Your task to perform on an android device: Search for the new iphone 13 pro on Etsy. Image 0: 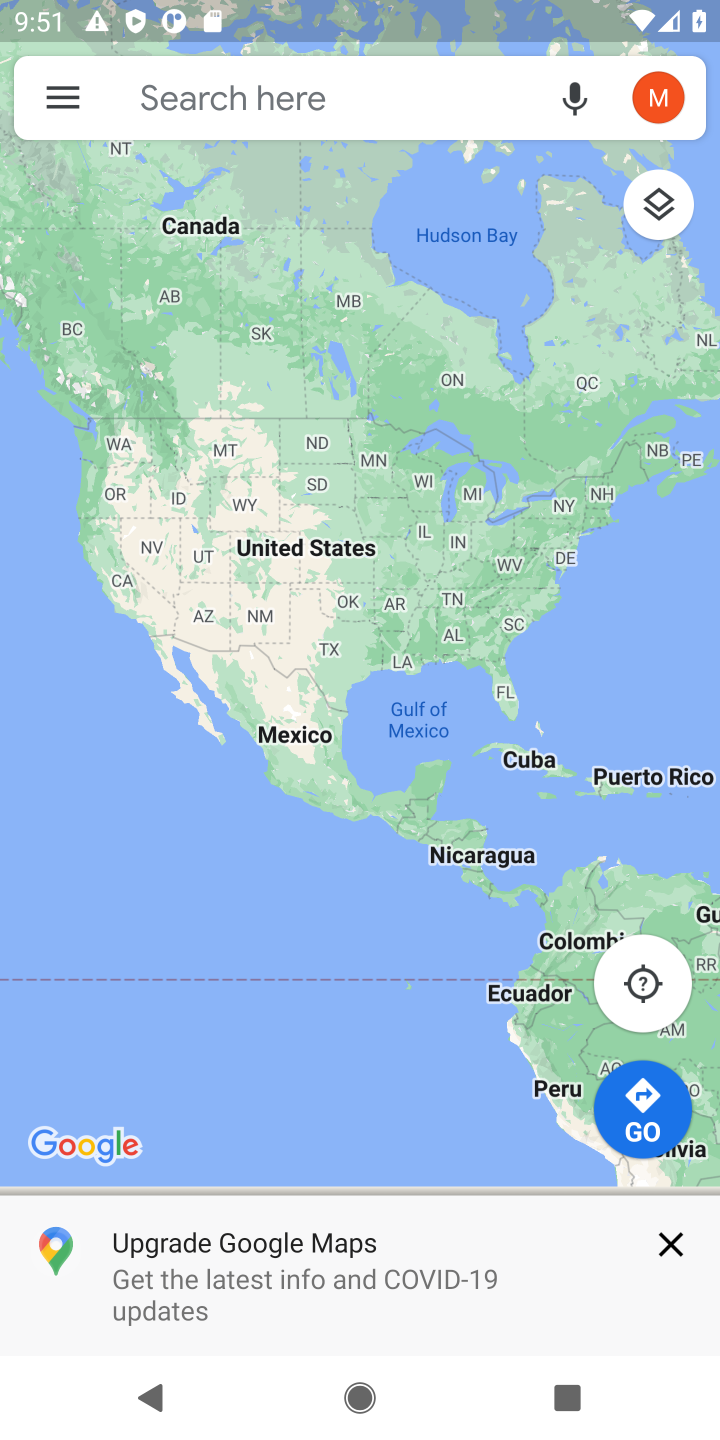
Step 0: press home button
Your task to perform on an android device: Search for the new iphone 13 pro on Etsy. Image 1: 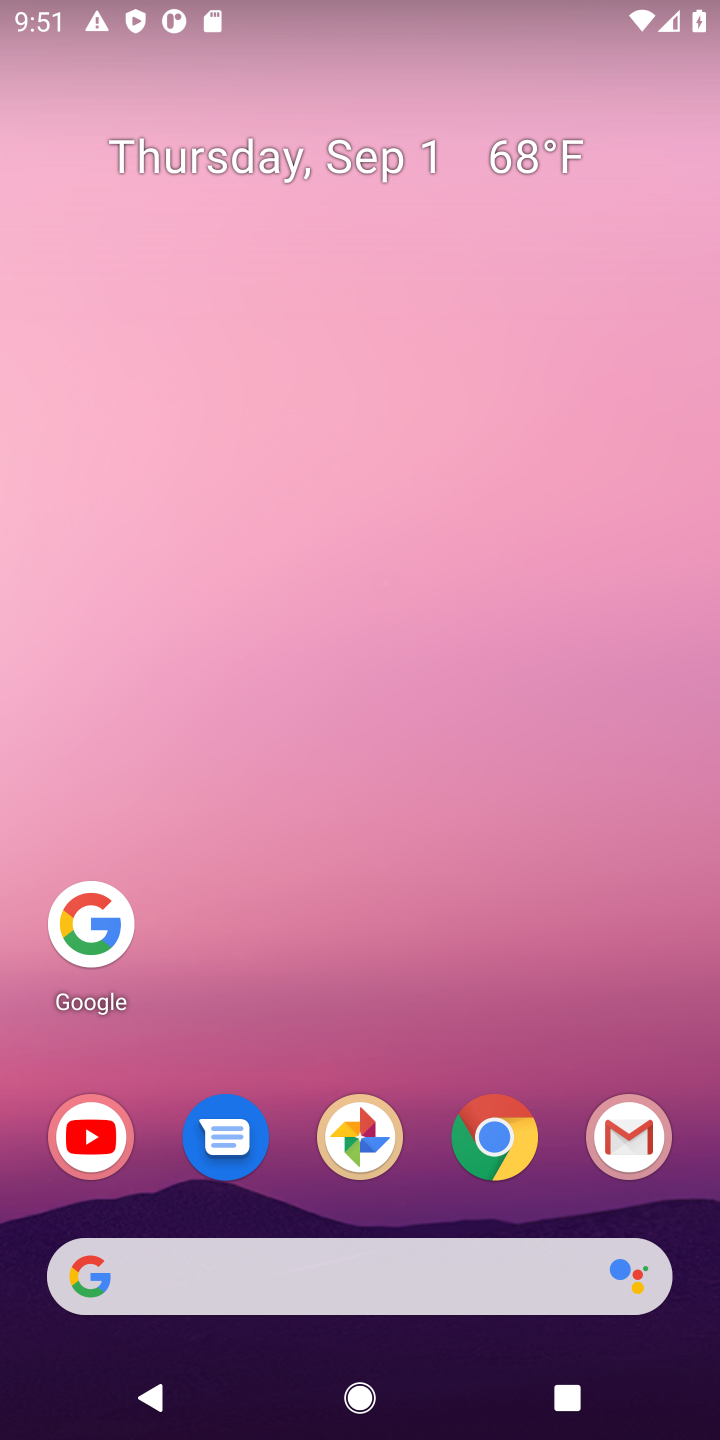
Step 1: click (315, 1276)
Your task to perform on an android device: Search for the new iphone 13 pro on Etsy. Image 2: 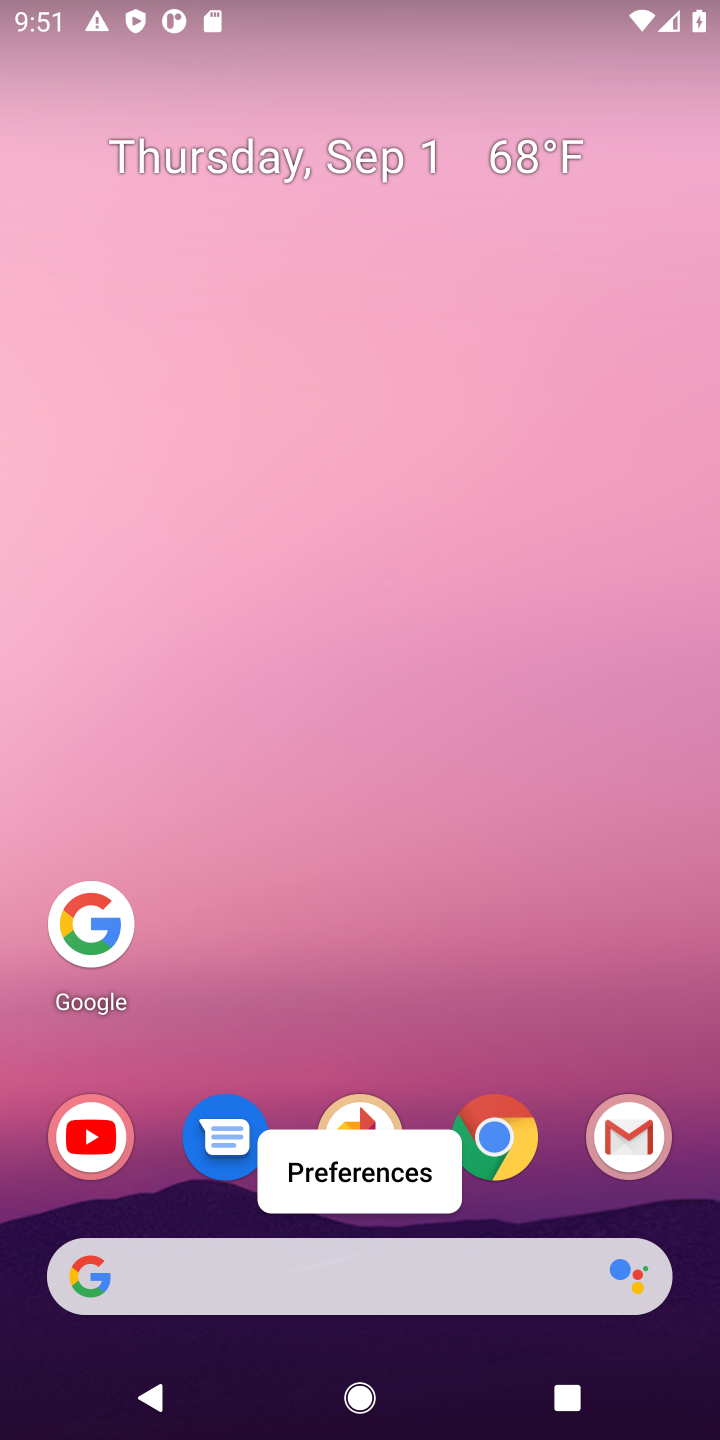
Step 2: click (95, 922)
Your task to perform on an android device: Search for the new iphone 13 pro on Etsy. Image 3: 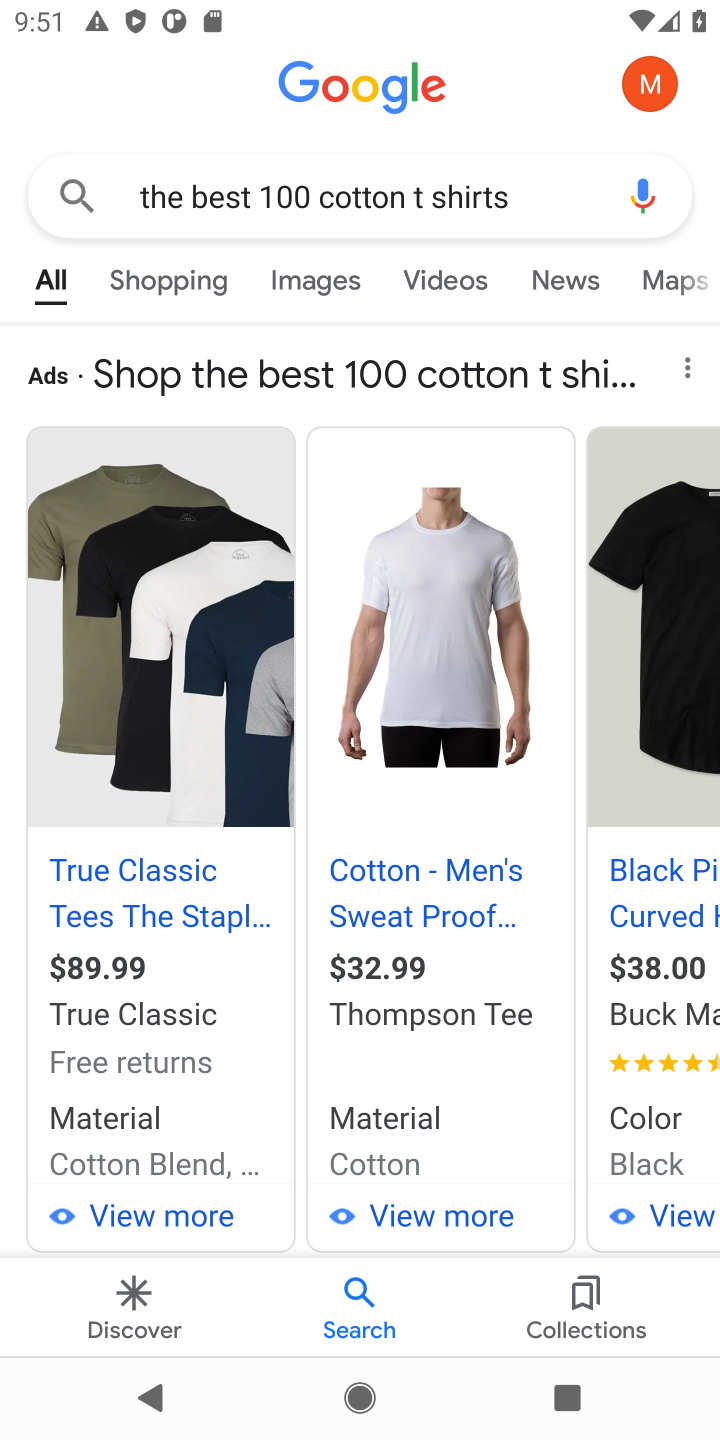
Step 3: click (535, 163)
Your task to perform on an android device: Search for the new iphone 13 pro on Etsy. Image 4: 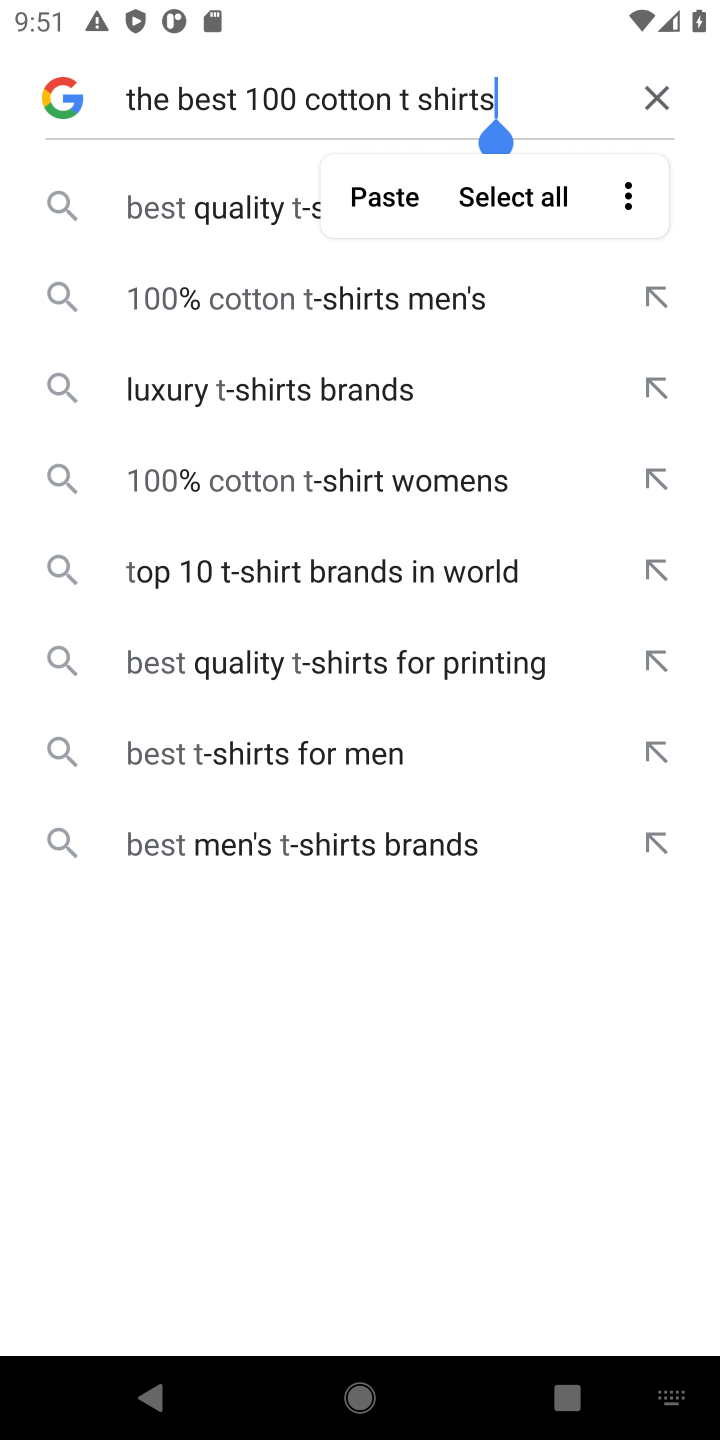
Step 4: click (662, 93)
Your task to perform on an android device: Search for the new iphone 13 pro on Etsy. Image 5: 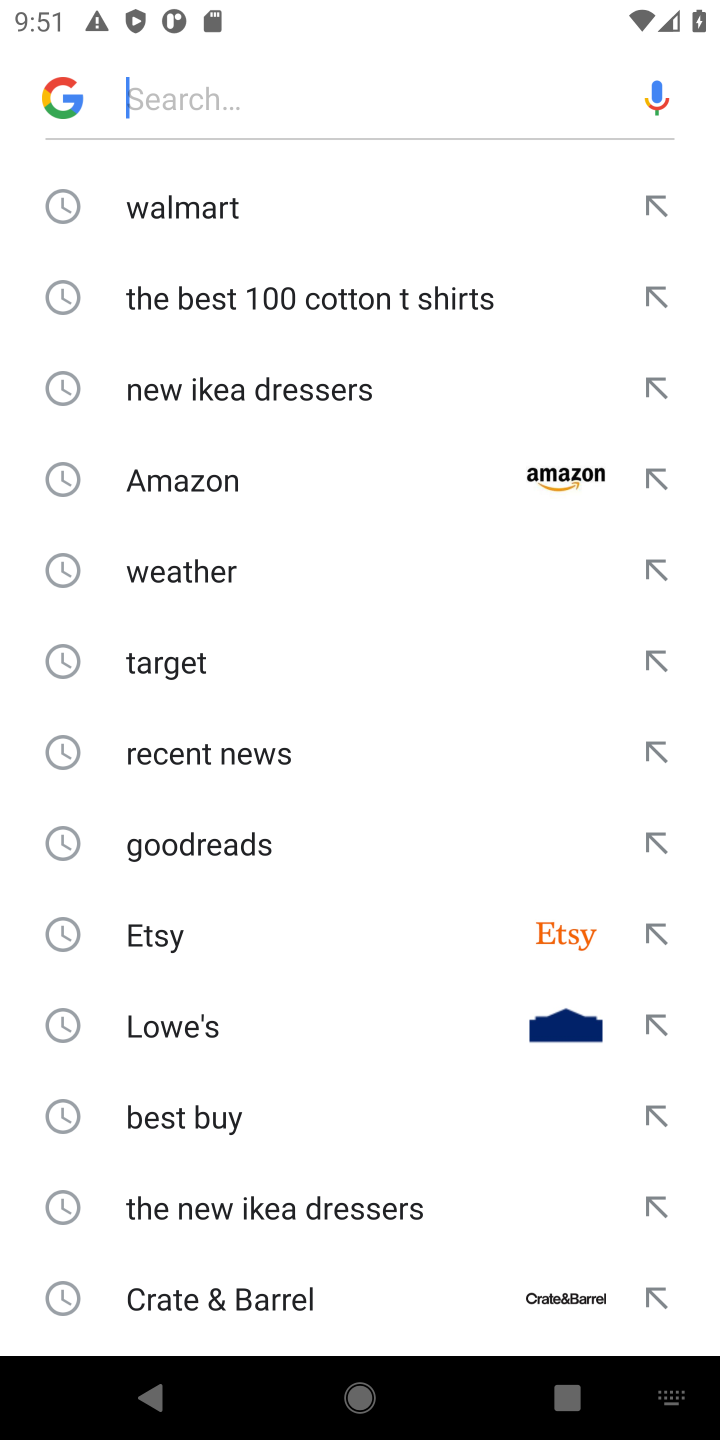
Step 5: type "etsy"
Your task to perform on an android device: Search for the new iphone 13 pro on Etsy. Image 6: 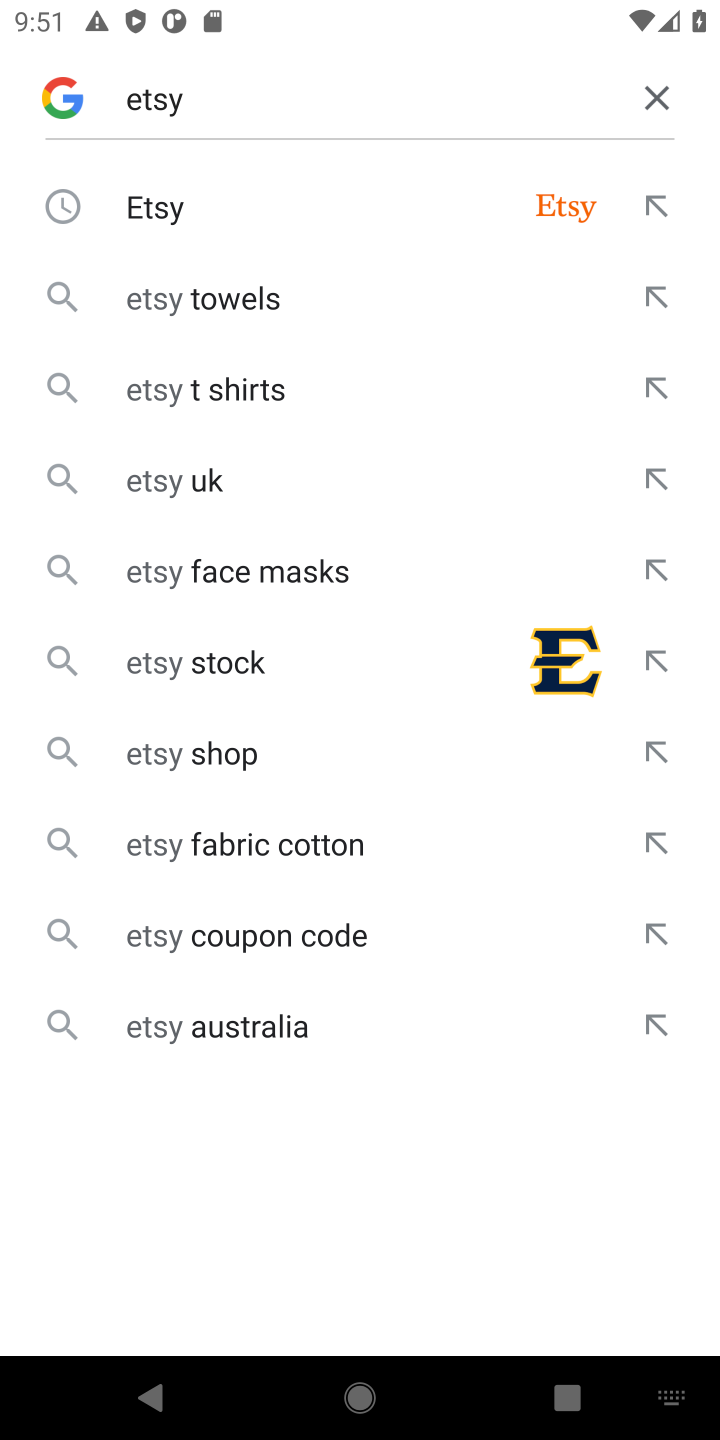
Step 6: click (177, 207)
Your task to perform on an android device: Search for the new iphone 13 pro on Etsy. Image 7: 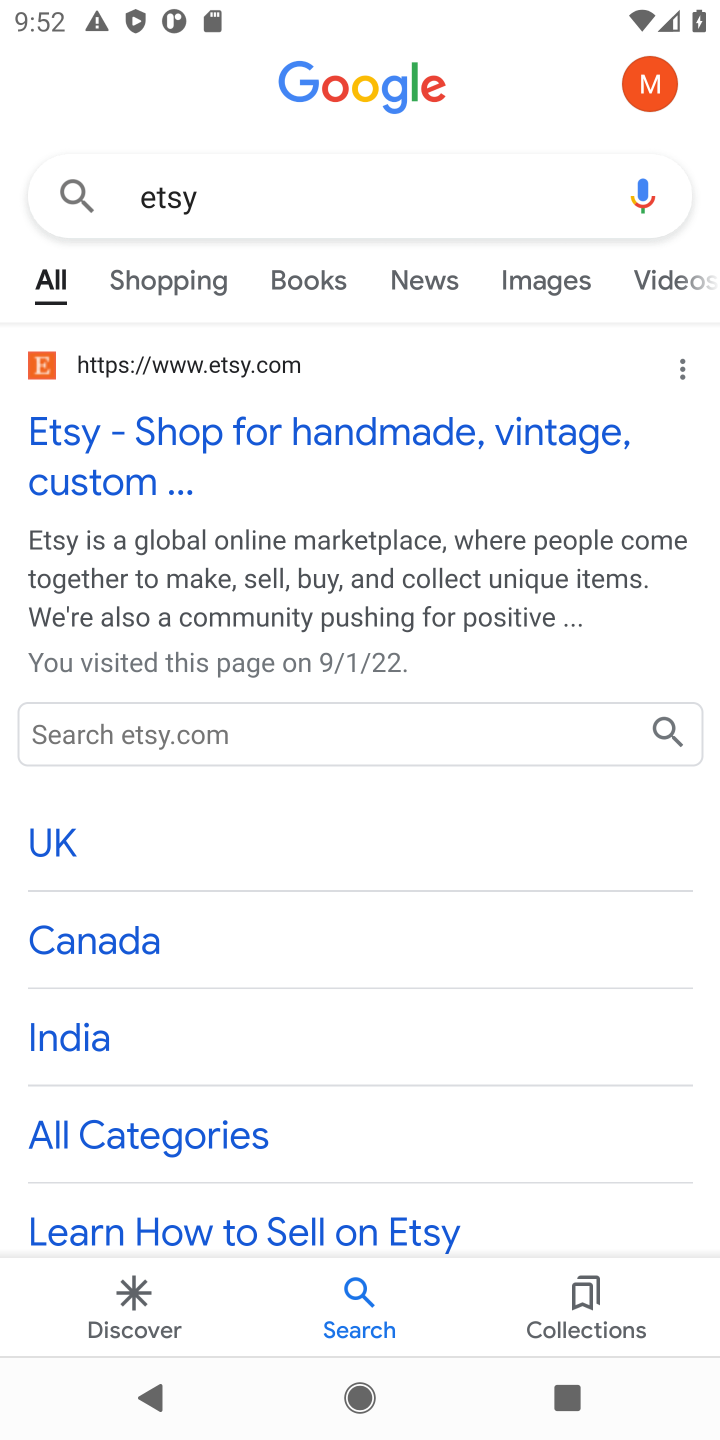
Step 7: click (168, 437)
Your task to perform on an android device: Search for the new iphone 13 pro on Etsy. Image 8: 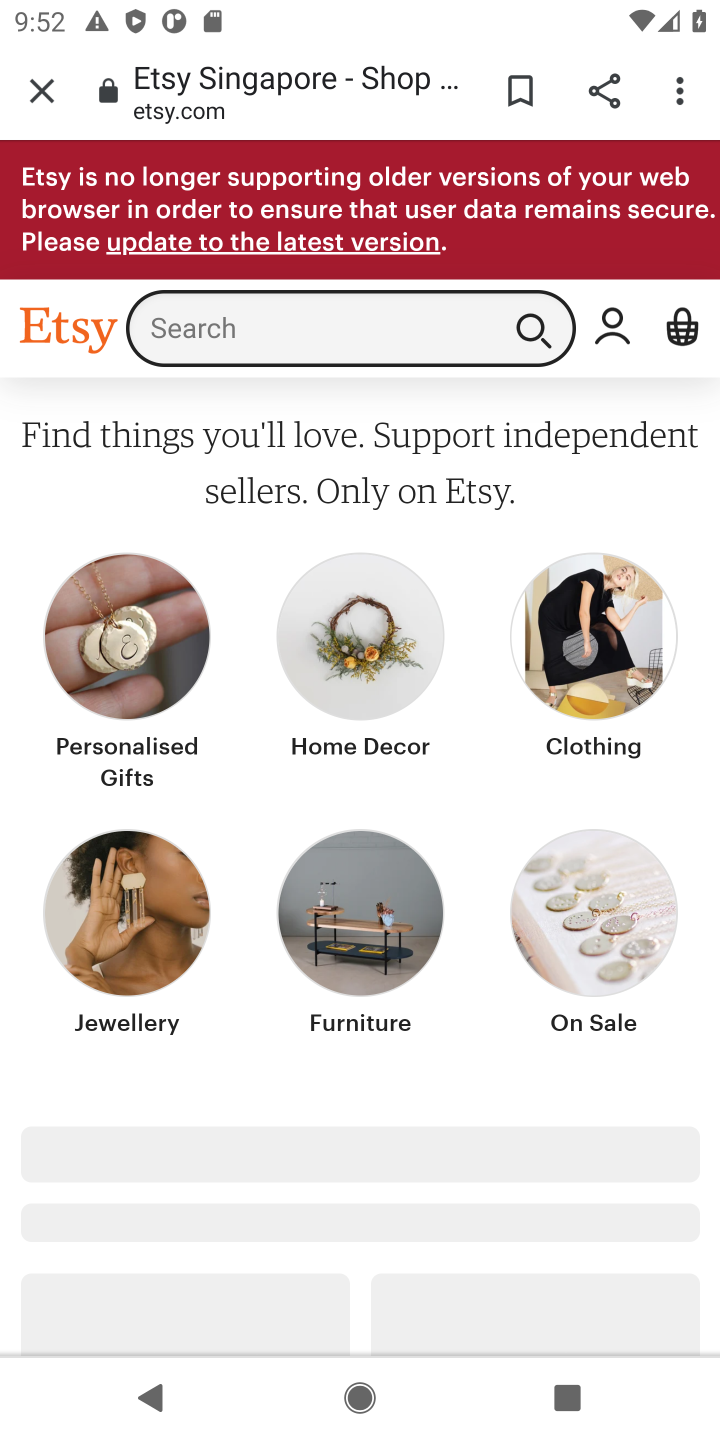
Step 8: click (249, 335)
Your task to perform on an android device: Search for the new iphone 13 pro on Etsy. Image 9: 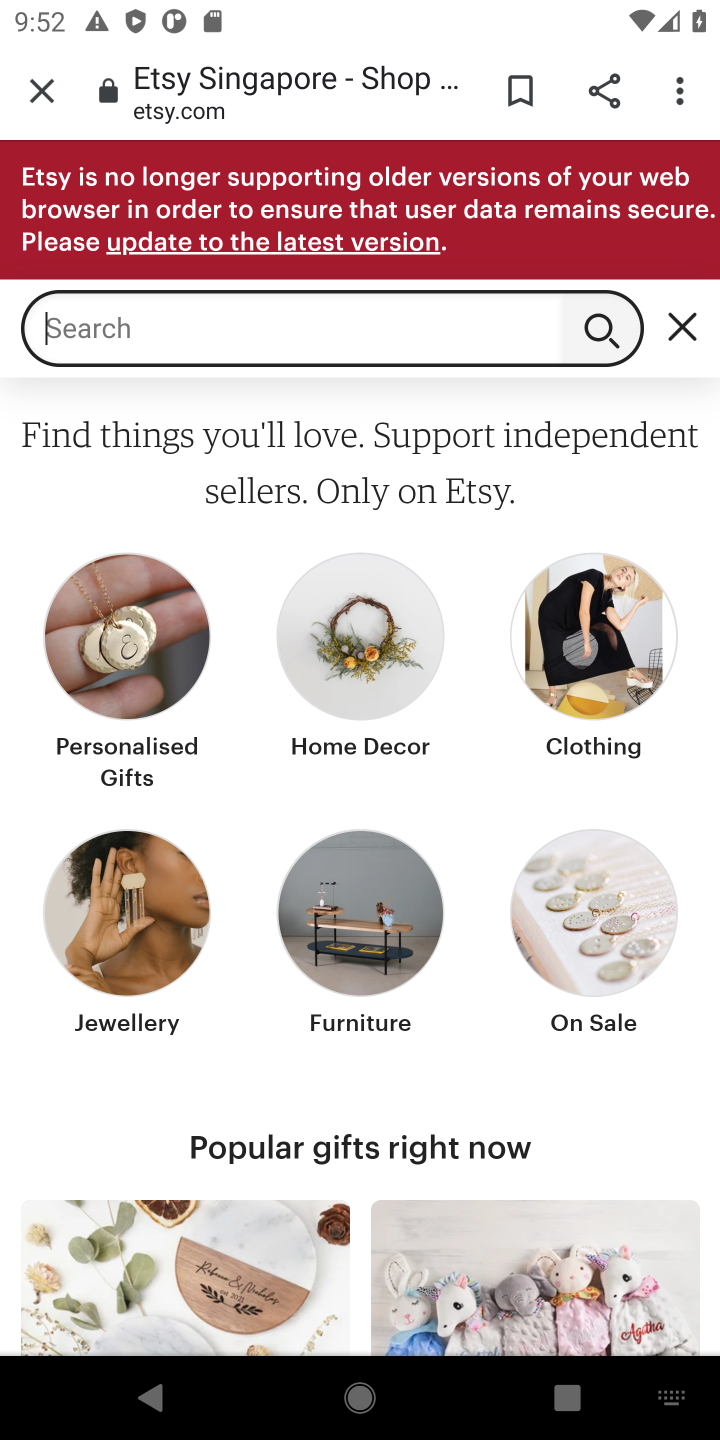
Step 9: type "new iphone 13 pro "
Your task to perform on an android device: Search for the new iphone 13 pro on Etsy. Image 10: 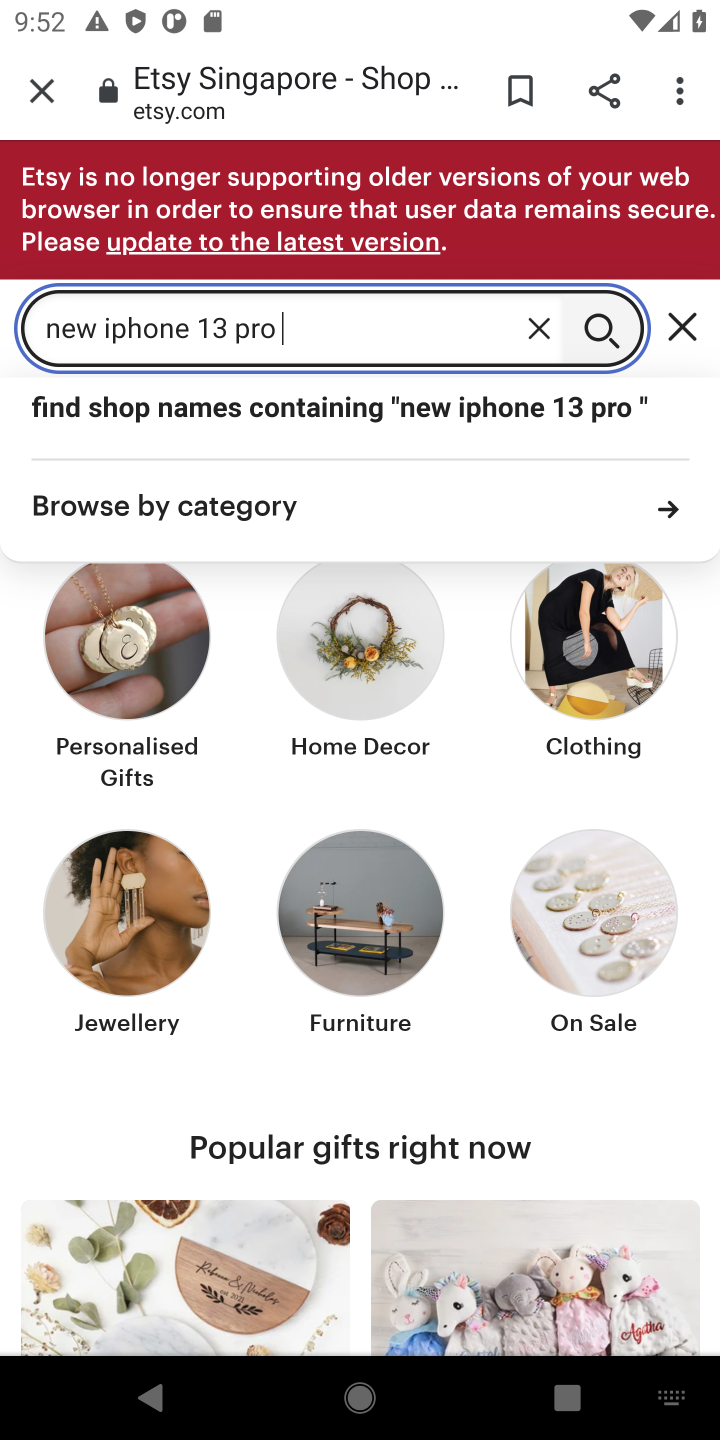
Step 10: click (599, 331)
Your task to perform on an android device: Search for the new iphone 13 pro on Etsy. Image 11: 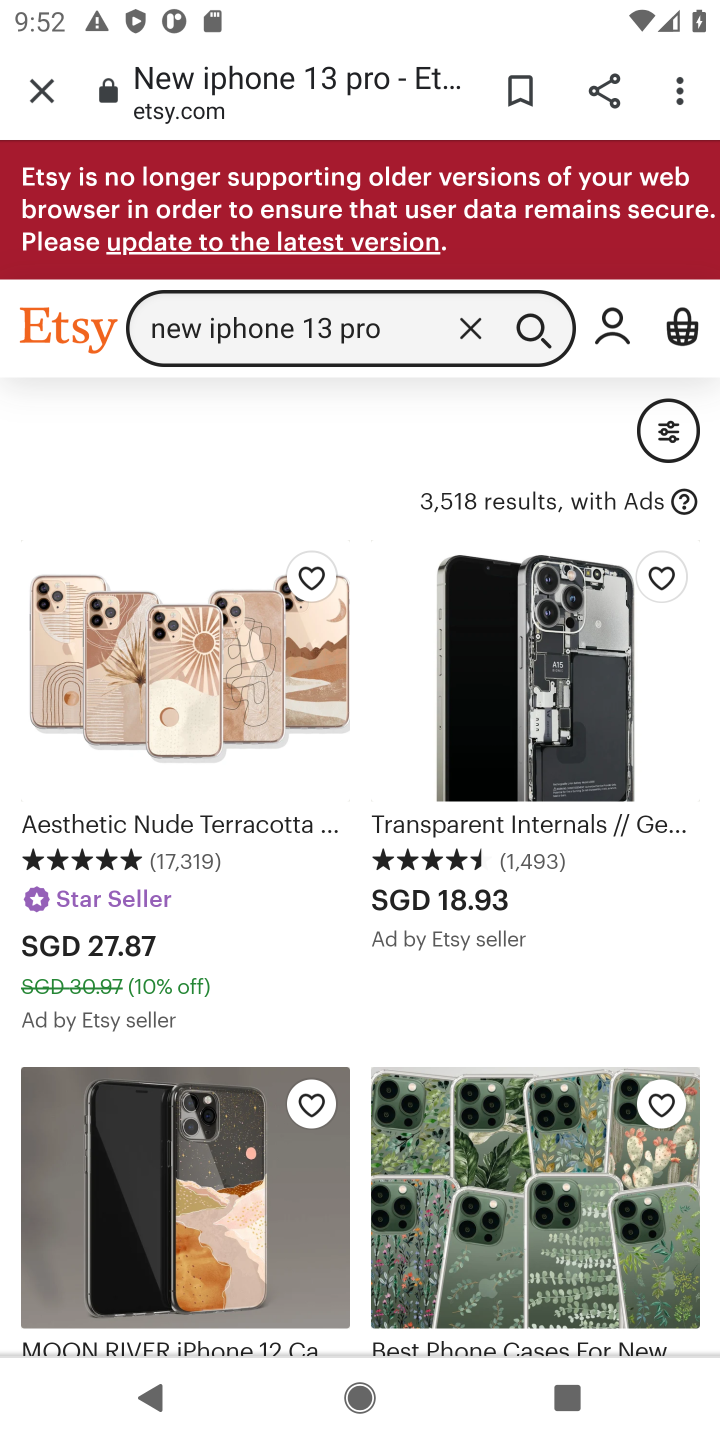
Step 11: task complete